Your task to perform on an android device: toggle pop-ups in chrome Image 0: 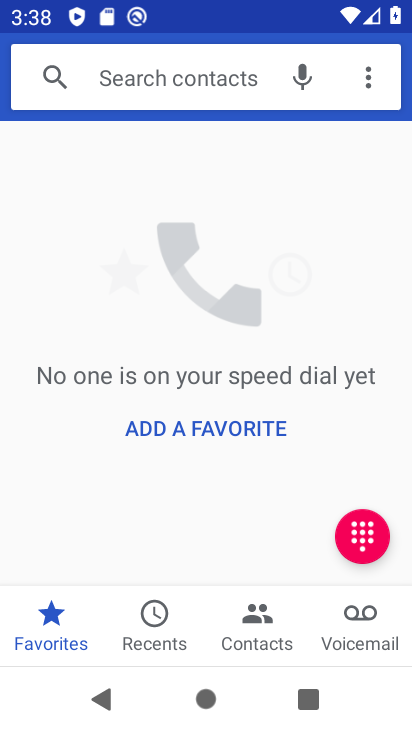
Step 0: press home button
Your task to perform on an android device: toggle pop-ups in chrome Image 1: 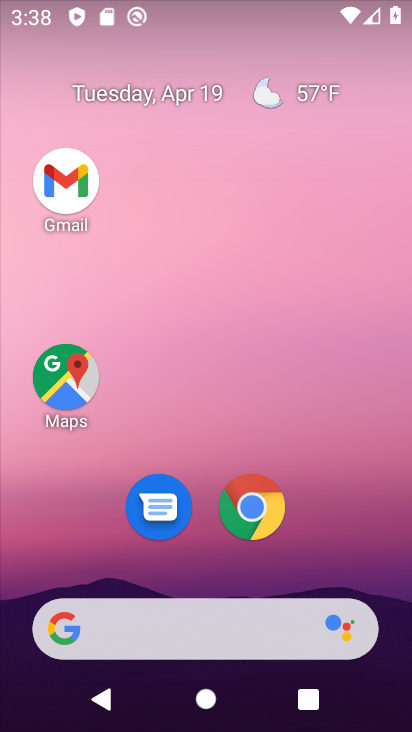
Step 1: click (266, 520)
Your task to perform on an android device: toggle pop-ups in chrome Image 2: 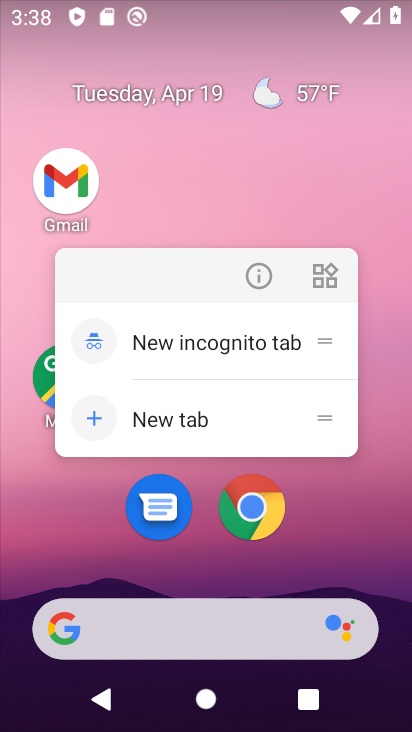
Step 2: click (262, 499)
Your task to perform on an android device: toggle pop-ups in chrome Image 3: 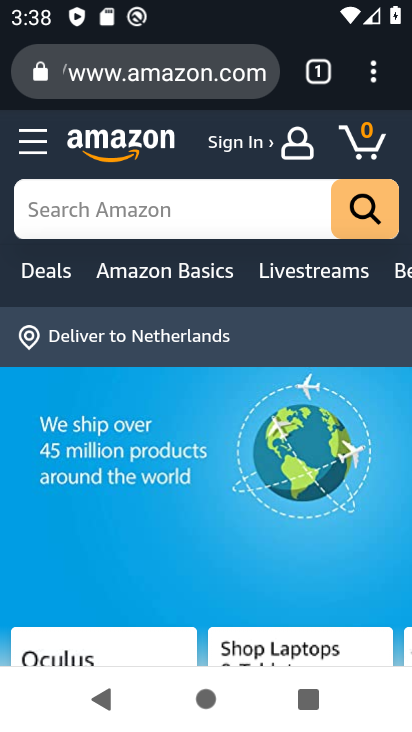
Step 3: click (382, 83)
Your task to perform on an android device: toggle pop-ups in chrome Image 4: 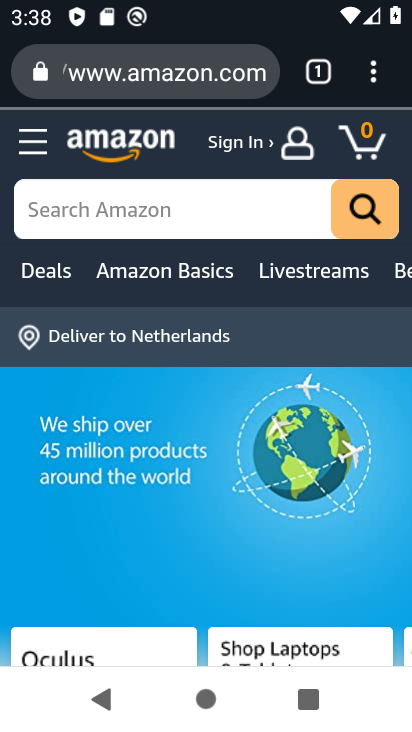
Step 4: click (376, 70)
Your task to perform on an android device: toggle pop-ups in chrome Image 5: 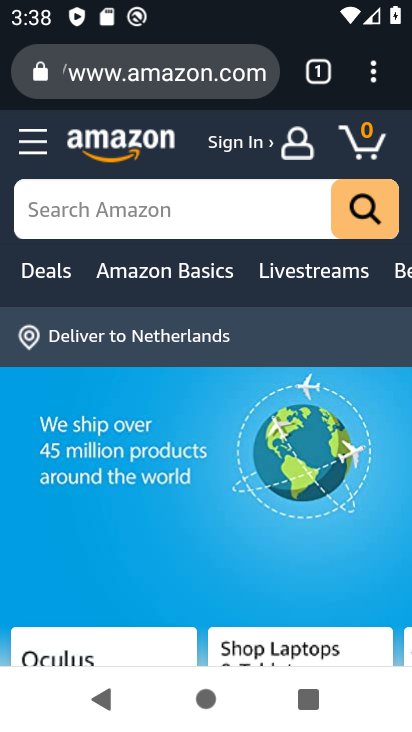
Step 5: click (371, 77)
Your task to perform on an android device: toggle pop-ups in chrome Image 6: 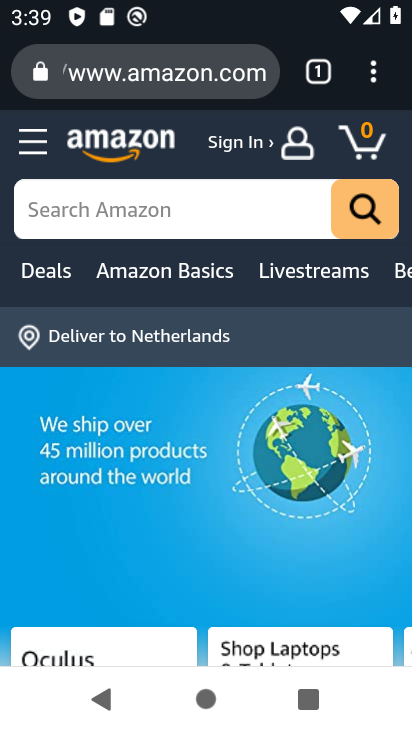
Step 6: click (382, 62)
Your task to perform on an android device: toggle pop-ups in chrome Image 7: 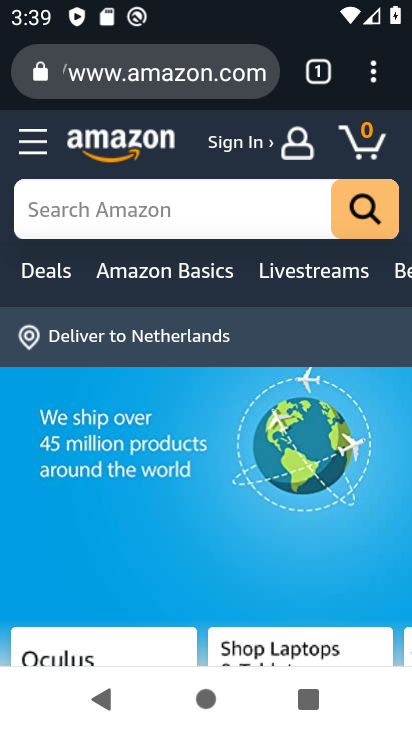
Step 7: click (378, 71)
Your task to perform on an android device: toggle pop-ups in chrome Image 8: 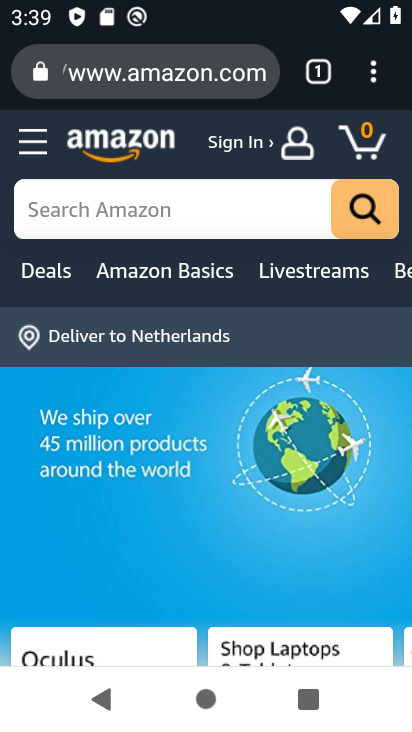
Step 8: click (378, 71)
Your task to perform on an android device: toggle pop-ups in chrome Image 9: 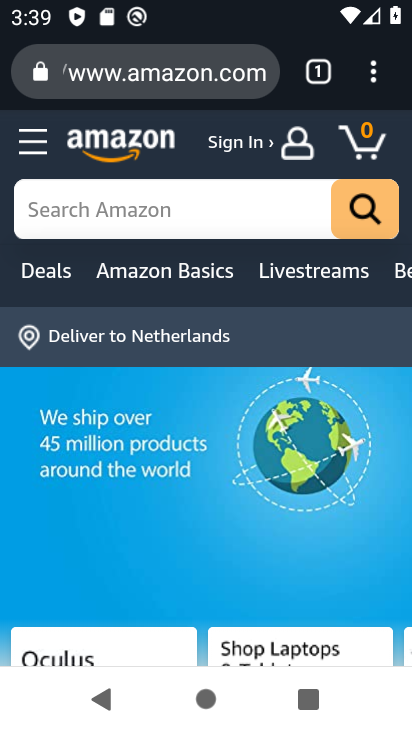
Step 9: click (366, 73)
Your task to perform on an android device: toggle pop-ups in chrome Image 10: 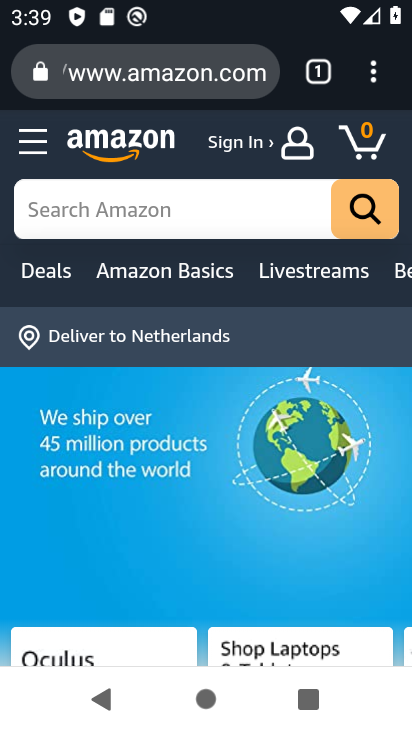
Step 10: click (375, 75)
Your task to perform on an android device: toggle pop-ups in chrome Image 11: 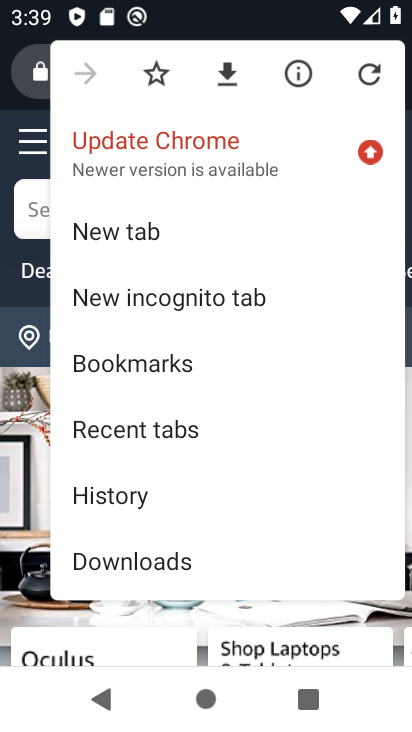
Step 11: drag from (209, 457) to (267, 158)
Your task to perform on an android device: toggle pop-ups in chrome Image 12: 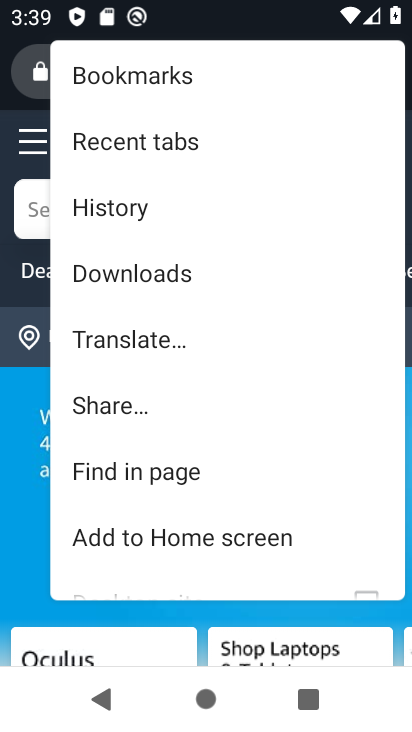
Step 12: drag from (232, 434) to (261, 243)
Your task to perform on an android device: toggle pop-ups in chrome Image 13: 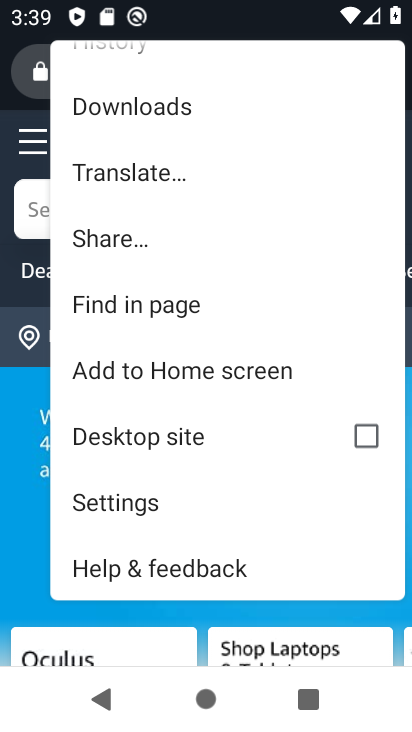
Step 13: click (138, 500)
Your task to perform on an android device: toggle pop-ups in chrome Image 14: 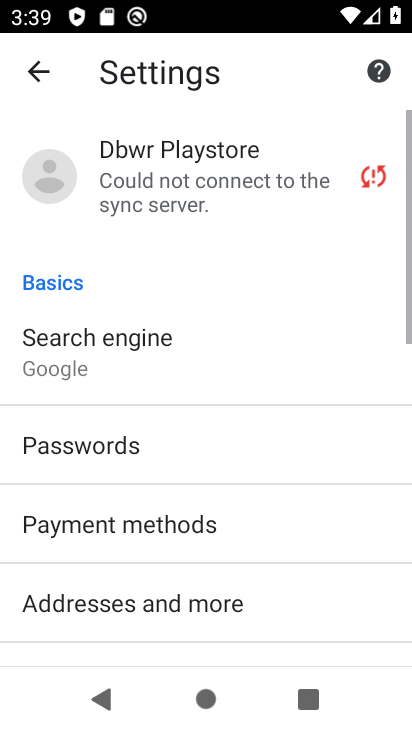
Step 14: drag from (138, 500) to (212, 172)
Your task to perform on an android device: toggle pop-ups in chrome Image 15: 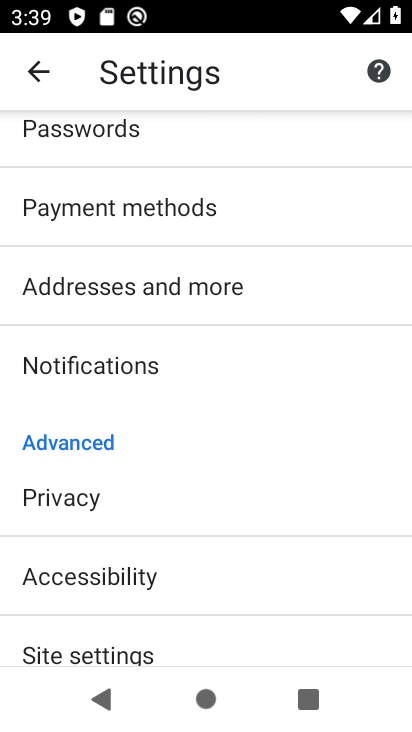
Step 15: drag from (163, 552) to (180, 285)
Your task to perform on an android device: toggle pop-ups in chrome Image 16: 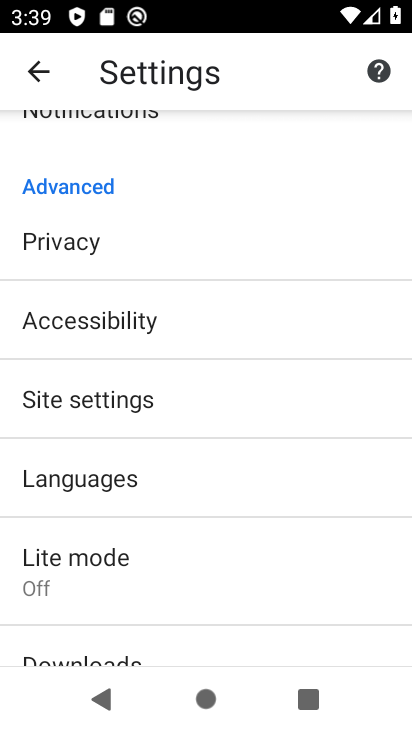
Step 16: click (184, 383)
Your task to perform on an android device: toggle pop-ups in chrome Image 17: 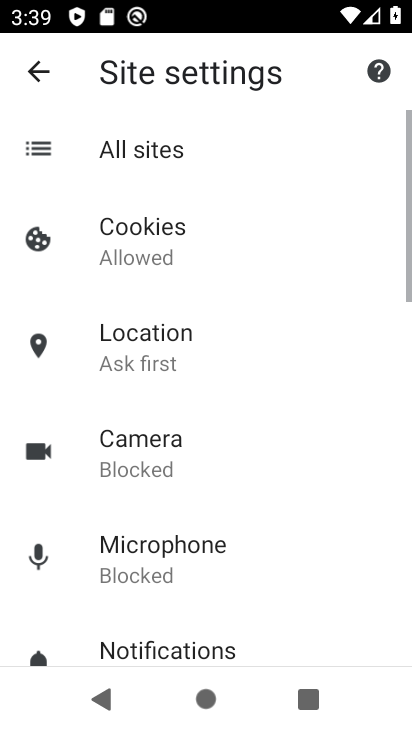
Step 17: drag from (210, 565) to (260, 174)
Your task to perform on an android device: toggle pop-ups in chrome Image 18: 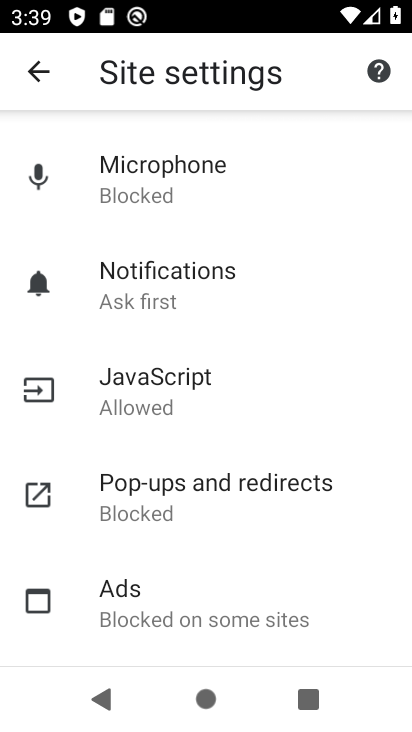
Step 18: click (199, 488)
Your task to perform on an android device: toggle pop-ups in chrome Image 19: 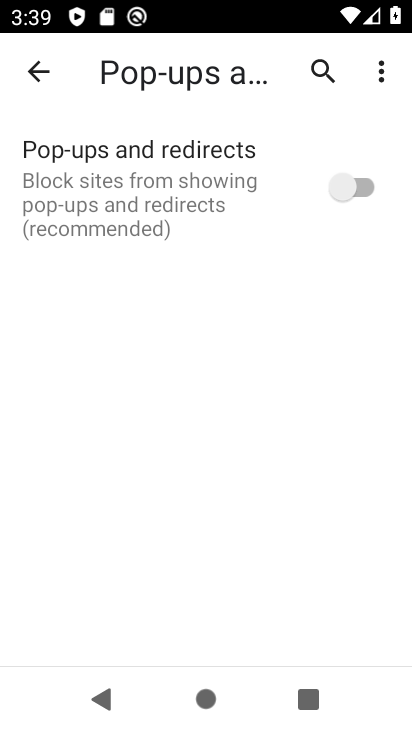
Step 19: click (358, 204)
Your task to perform on an android device: toggle pop-ups in chrome Image 20: 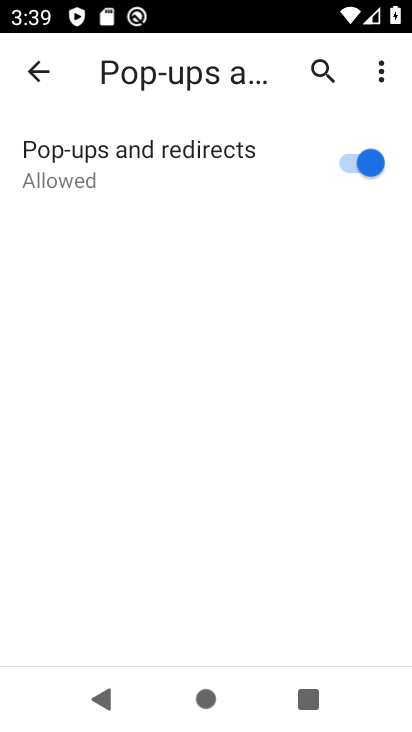
Step 20: task complete